Your task to perform on an android device: turn on wifi Image 0: 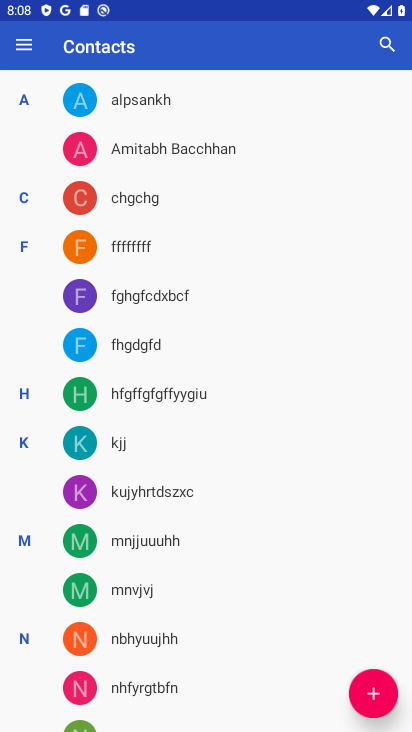
Step 0: press home button
Your task to perform on an android device: turn on wifi Image 1: 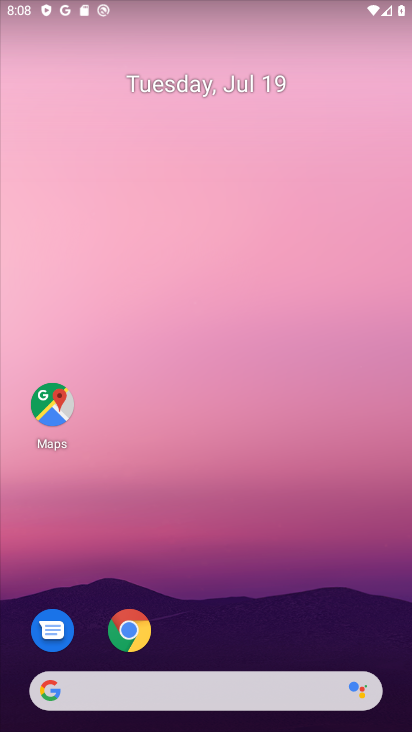
Step 1: drag from (243, 662) to (229, 24)
Your task to perform on an android device: turn on wifi Image 2: 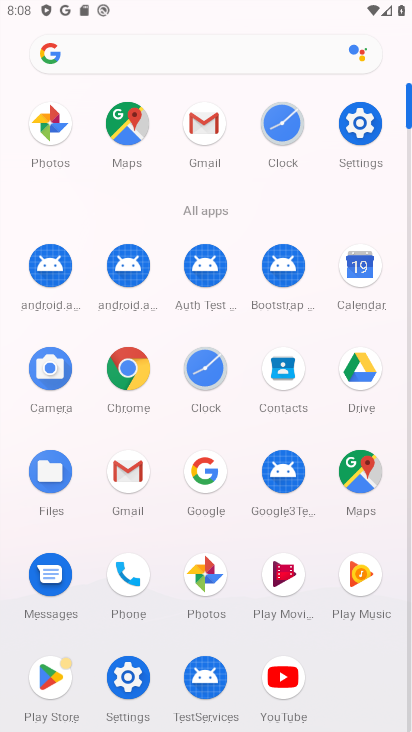
Step 2: click (362, 118)
Your task to perform on an android device: turn on wifi Image 3: 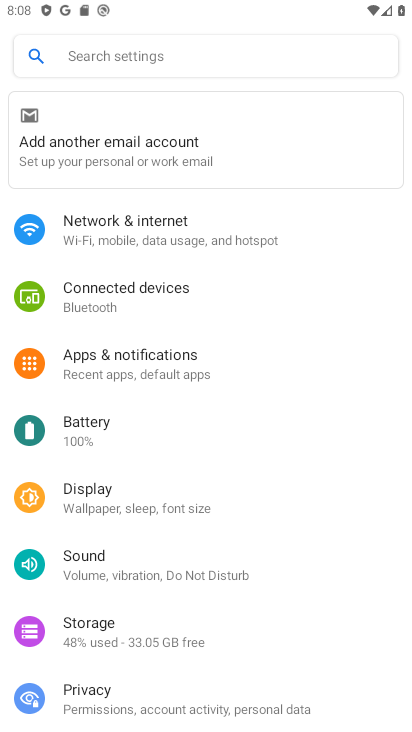
Step 3: click (220, 204)
Your task to perform on an android device: turn on wifi Image 4: 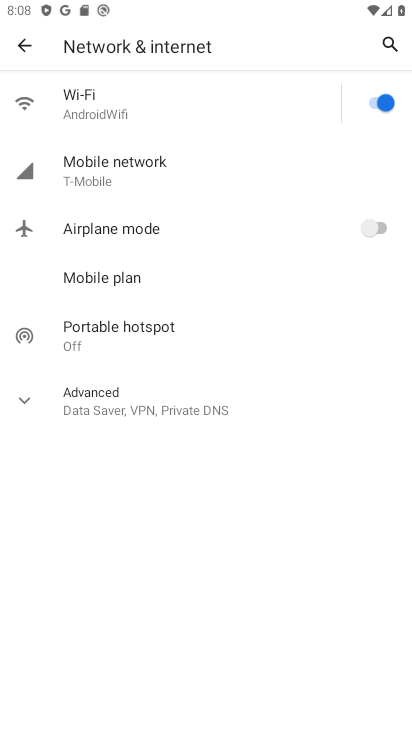
Step 4: task complete